Your task to perform on an android device: Go to internet settings Image 0: 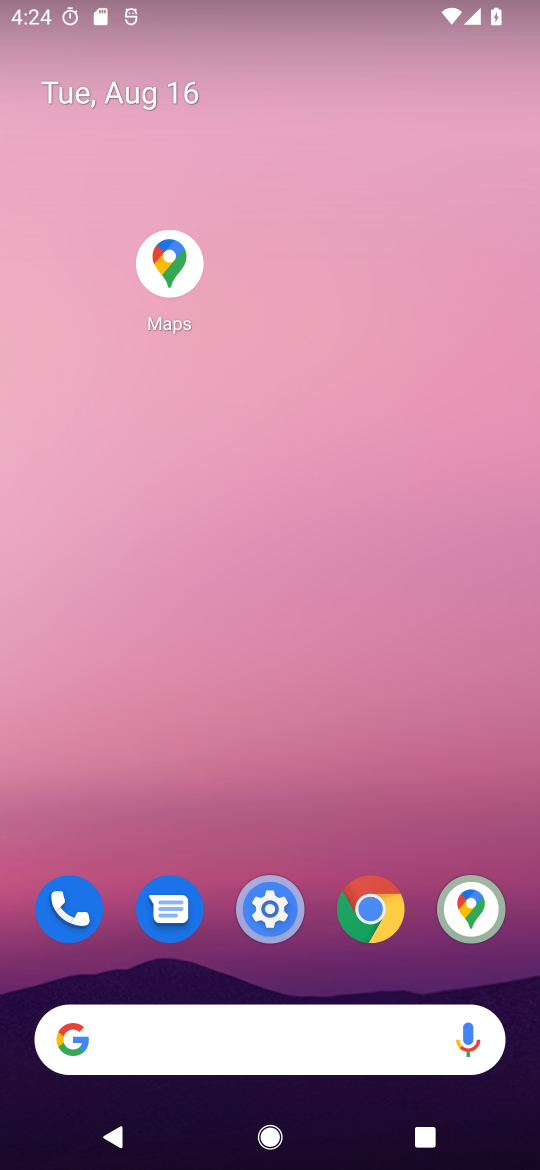
Step 0: drag from (242, 463) to (300, 9)
Your task to perform on an android device: Go to internet settings Image 1: 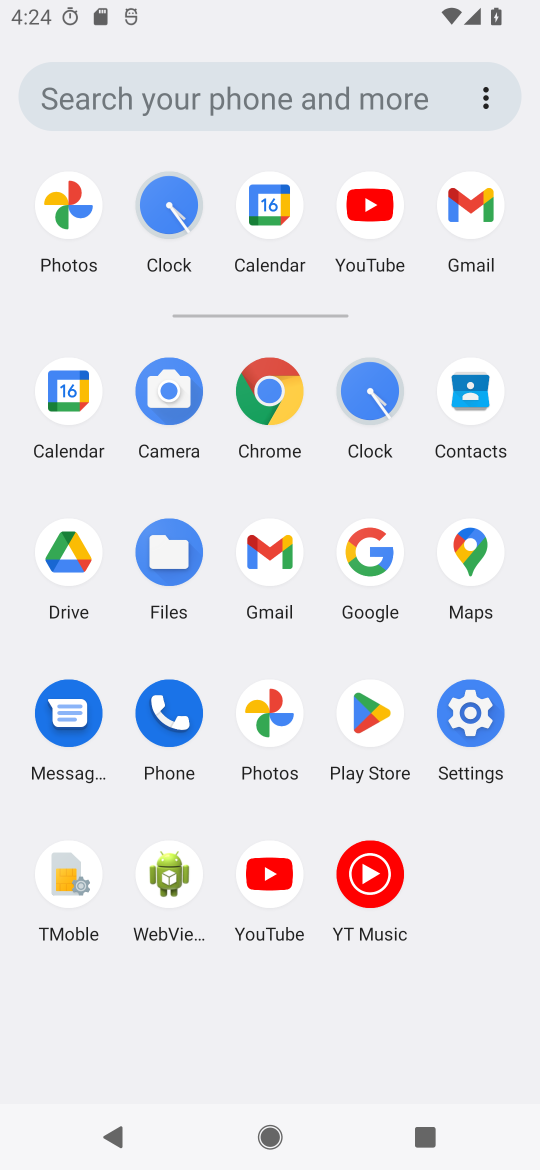
Step 1: click (467, 722)
Your task to perform on an android device: Go to internet settings Image 2: 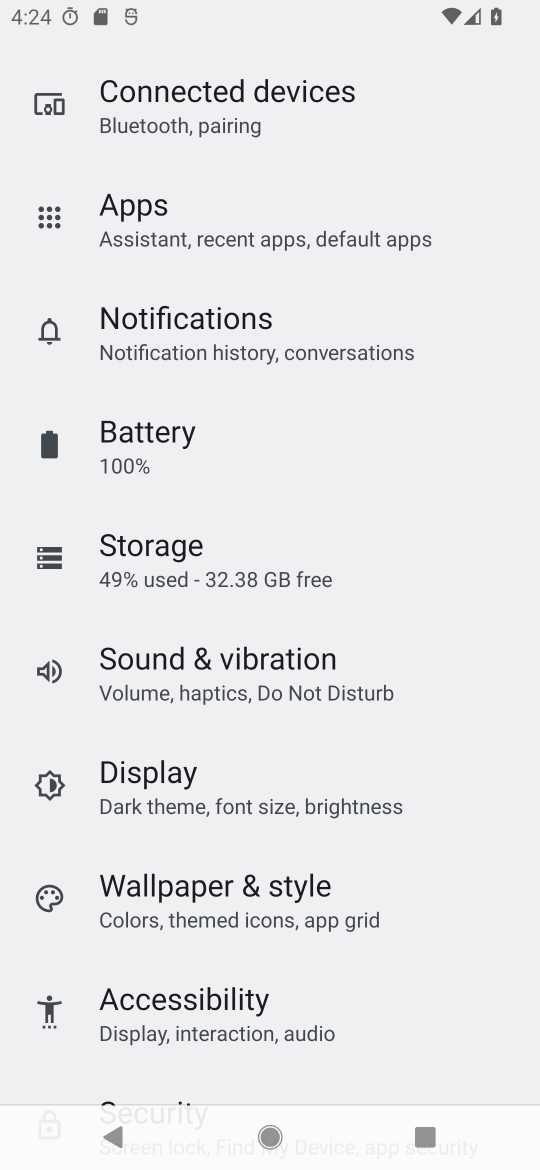
Step 2: drag from (332, 891) to (328, 1094)
Your task to perform on an android device: Go to internet settings Image 3: 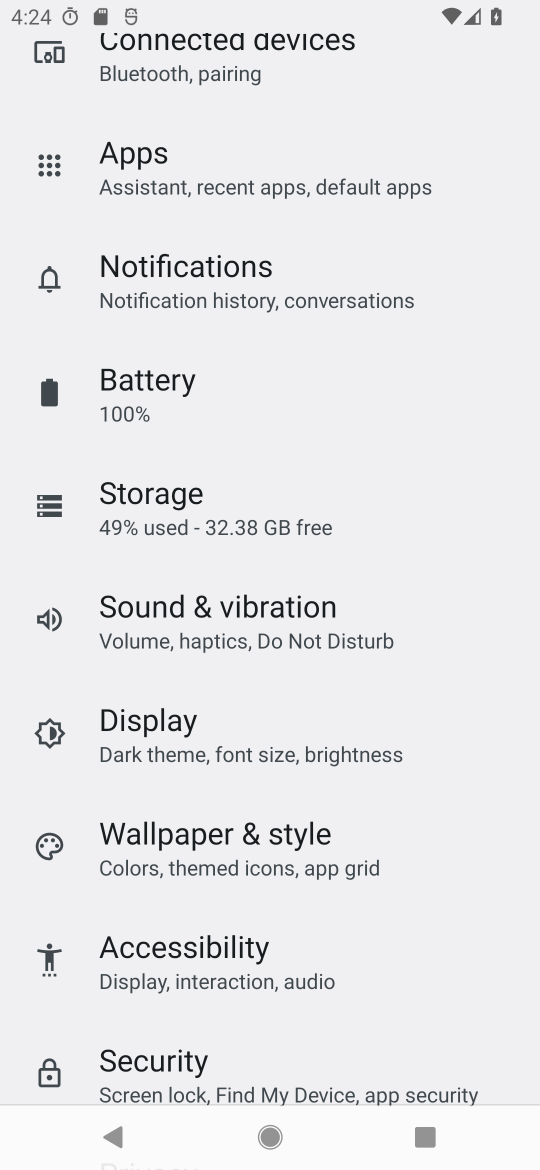
Step 3: drag from (213, 301) to (236, 889)
Your task to perform on an android device: Go to internet settings Image 4: 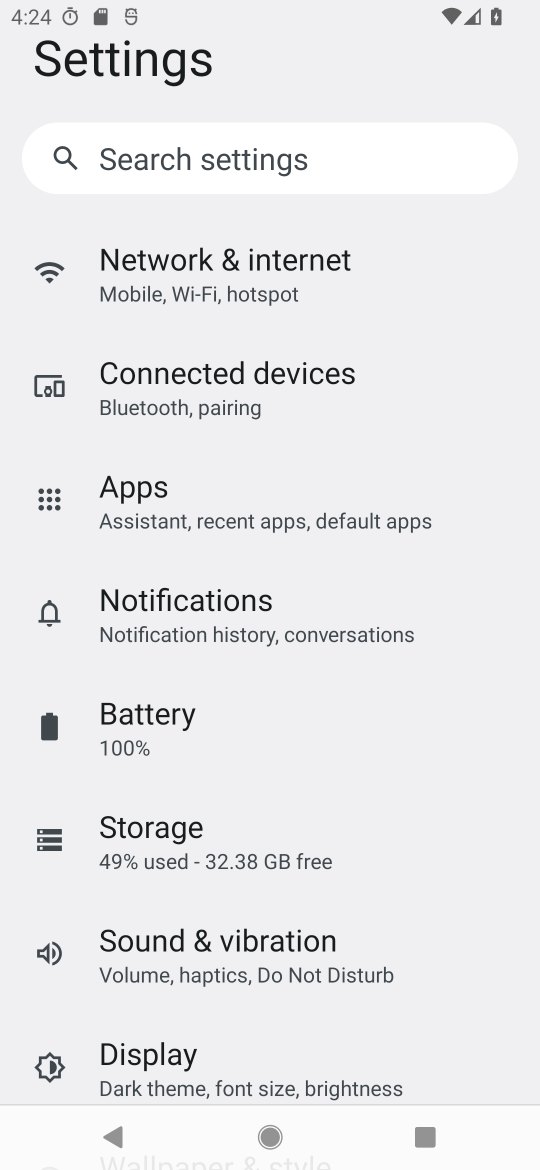
Step 4: click (226, 261)
Your task to perform on an android device: Go to internet settings Image 5: 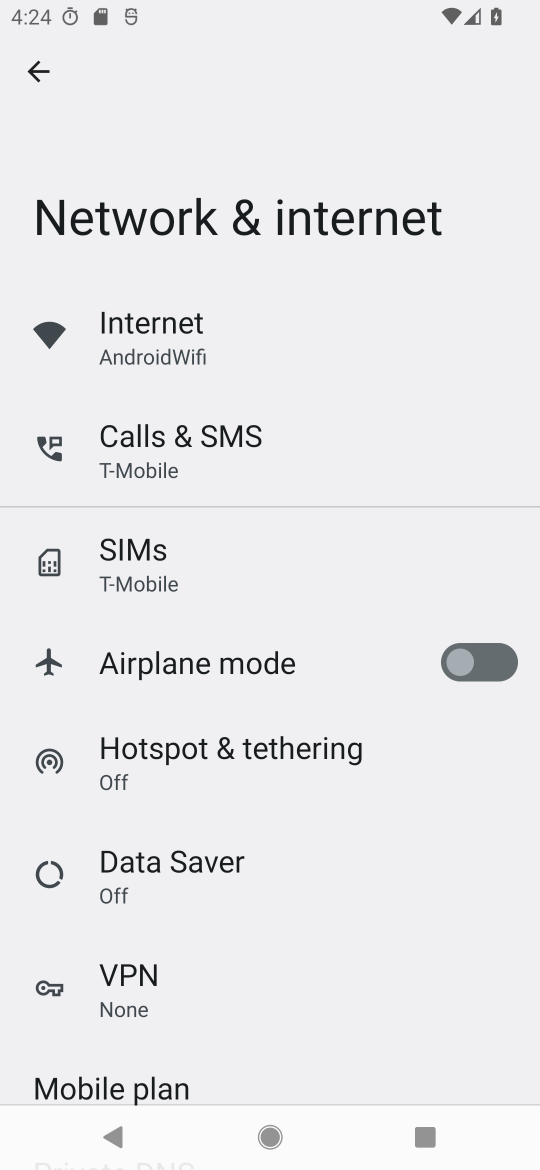
Step 5: task complete